Your task to perform on an android device: What's the weather going to be this weekend? Image 0: 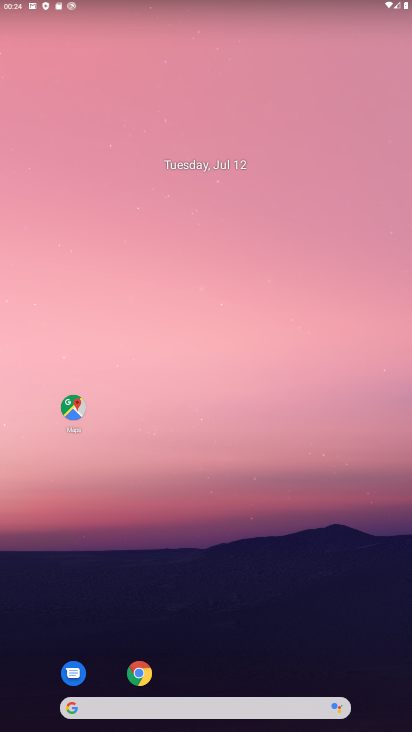
Step 0: press home button
Your task to perform on an android device: What's the weather going to be this weekend? Image 1: 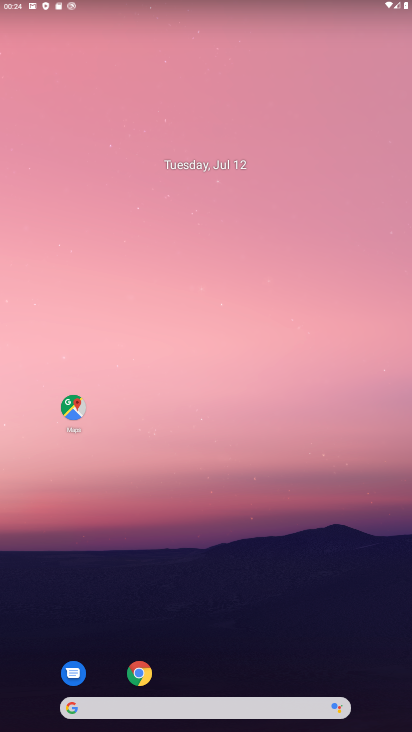
Step 1: drag from (226, 588) to (228, 141)
Your task to perform on an android device: What's the weather going to be this weekend? Image 2: 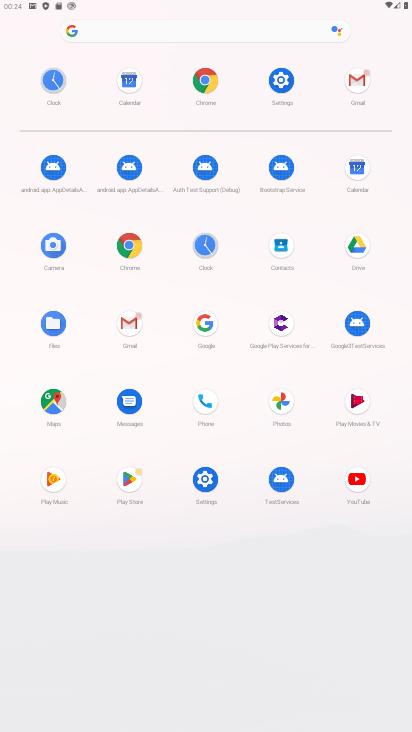
Step 2: click (209, 322)
Your task to perform on an android device: What's the weather going to be this weekend? Image 3: 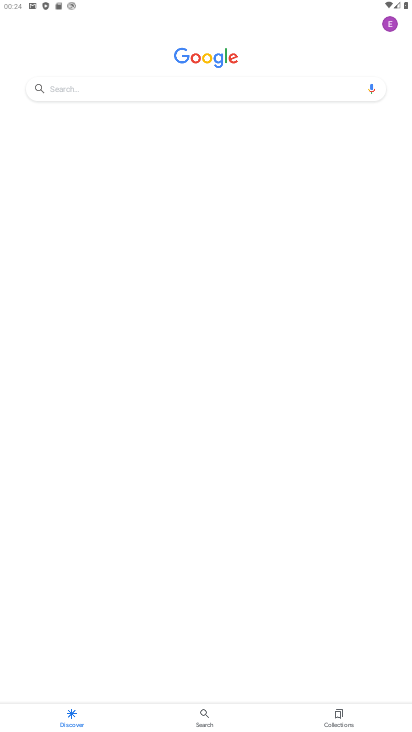
Step 3: click (122, 83)
Your task to perform on an android device: What's the weather going to be this weekend? Image 4: 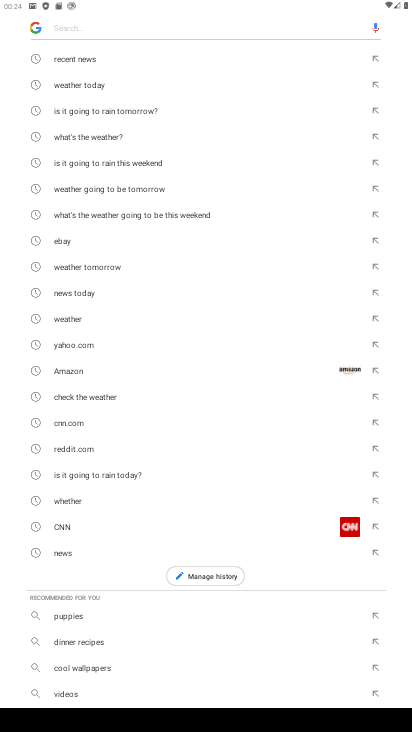
Step 4: type "What's the weather going to be this weekend?"
Your task to perform on an android device: What's the weather going to be this weekend? Image 5: 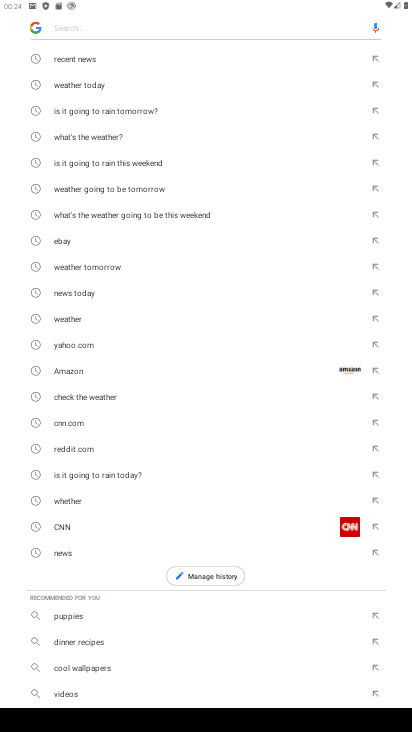
Step 5: click (90, 29)
Your task to perform on an android device: What's the weather going to be this weekend? Image 6: 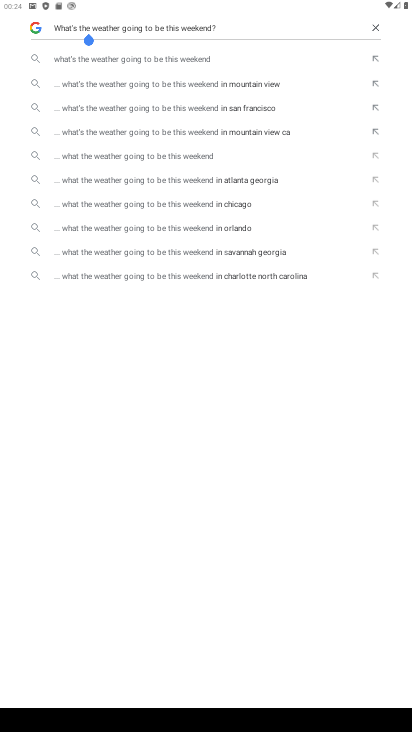
Step 6: press enter
Your task to perform on an android device: What's the weather going to be this weekend? Image 7: 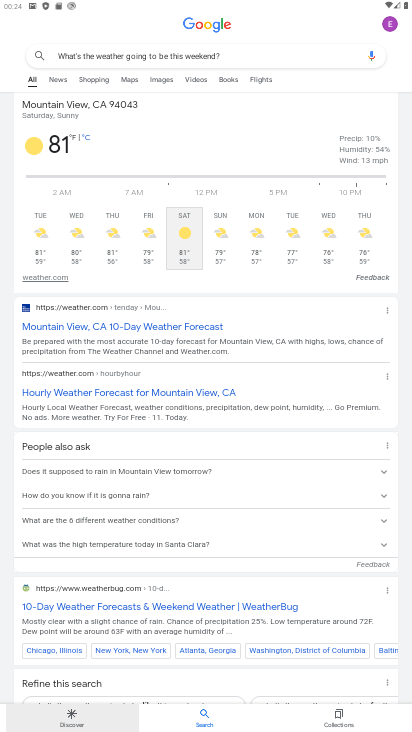
Step 7: task complete